Your task to perform on an android device: Show me the alarms in the clock app Image 0: 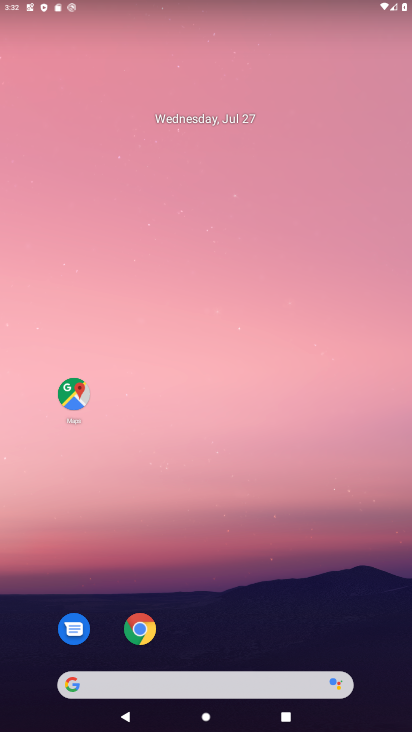
Step 0: drag from (323, 583) to (200, 8)
Your task to perform on an android device: Show me the alarms in the clock app Image 1: 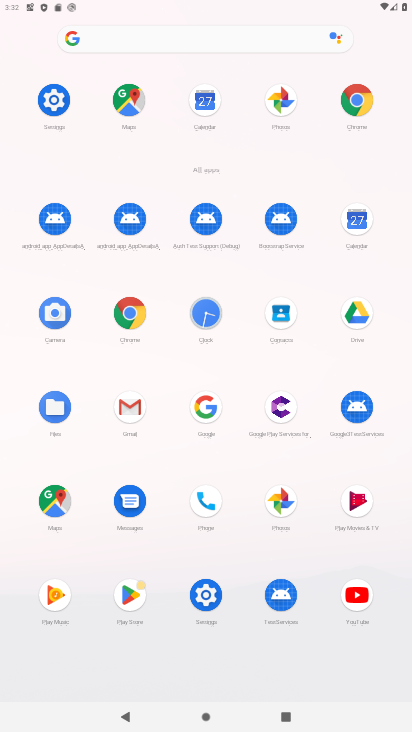
Step 1: click (207, 311)
Your task to perform on an android device: Show me the alarms in the clock app Image 2: 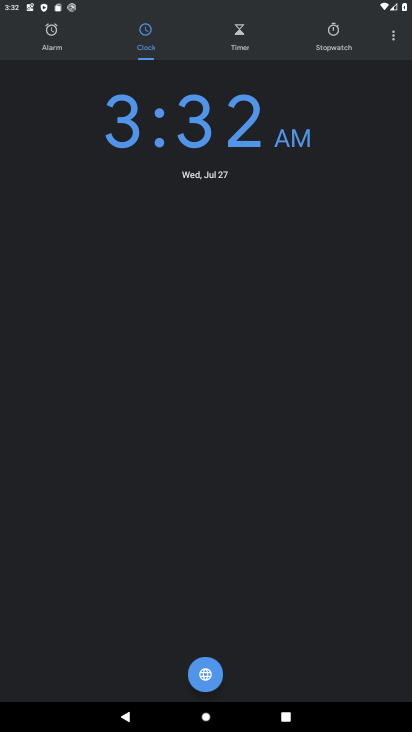
Step 2: click (66, 33)
Your task to perform on an android device: Show me the alarms in the clock app Image 3: 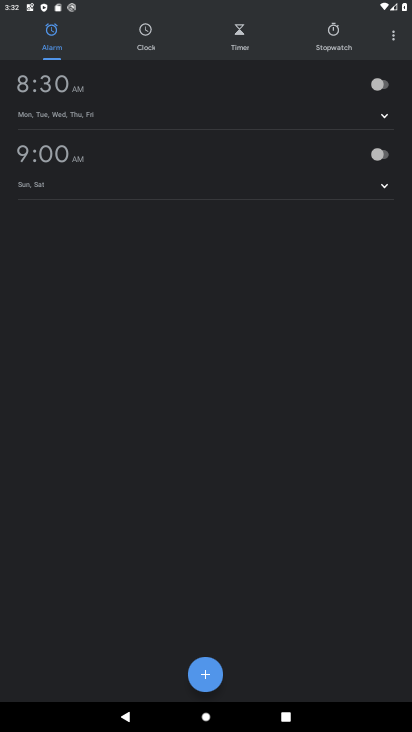
Step 3: task complete